Your task to perform on an android device: set an alarm Image 0: 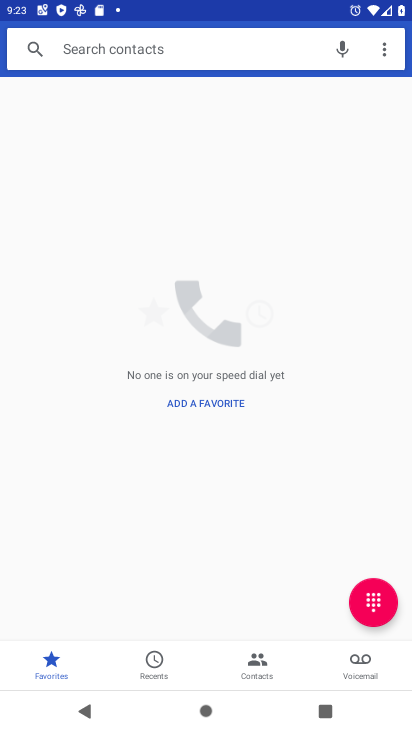
Step 0: press home button
Your task to perform on an android device: set an alarm Image 1: 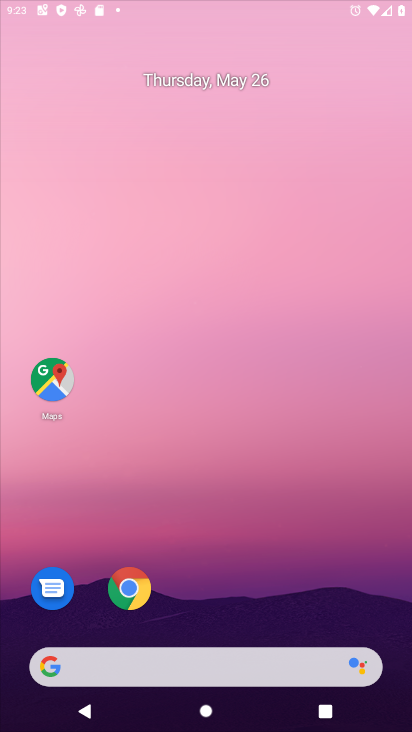
Step 1: drag from (388, 641) to (245, 43)
Your task to perform on an android device: set an alarm Image 2: 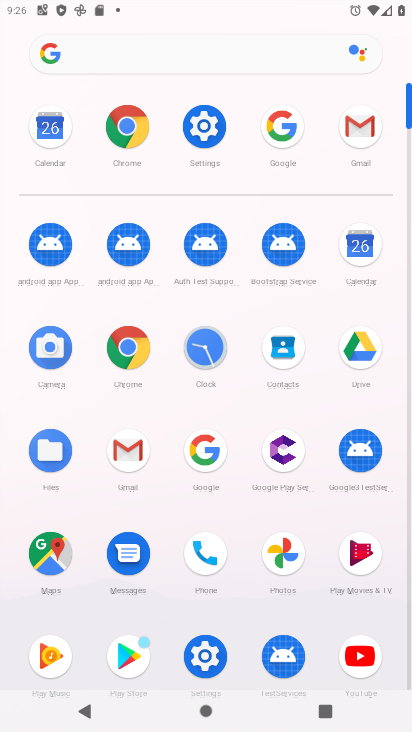
Step 2: click (215, 339)
Your task to perform on an android device: set an alarm Image 3: 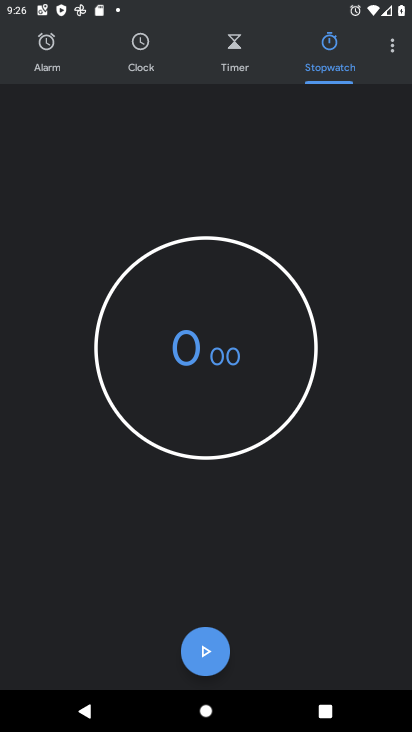
Step 3: click (49, 57)
Your task to perform on an android device: set an alarm Image 4: 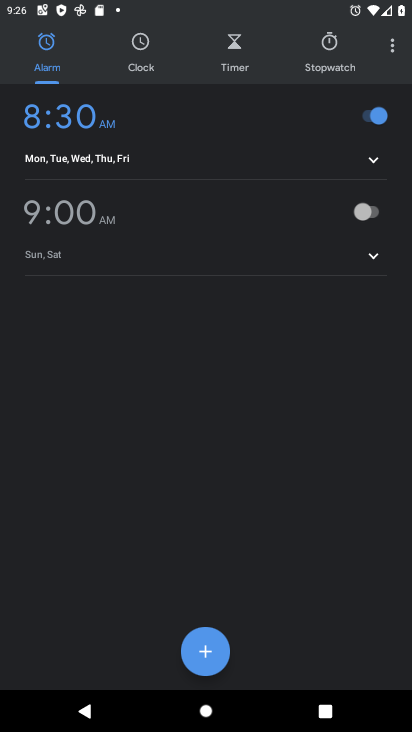
Step 4: click (368, 220)
Your task to perform on an android device: set an alarm Image 5: 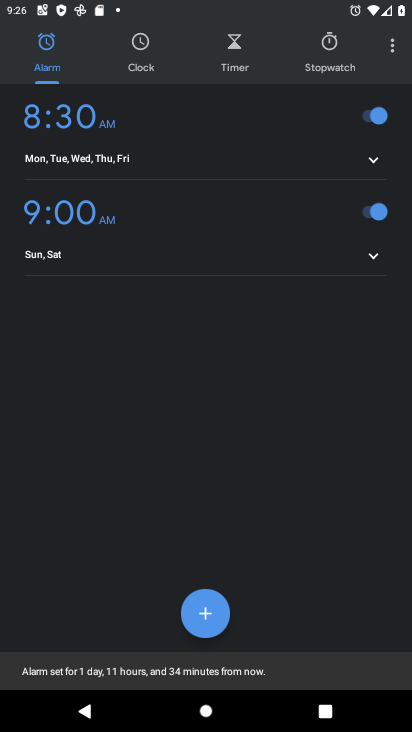
Step 5: task complete